Your task to perform on an android device: toggle translation in the chrome app Image 0: 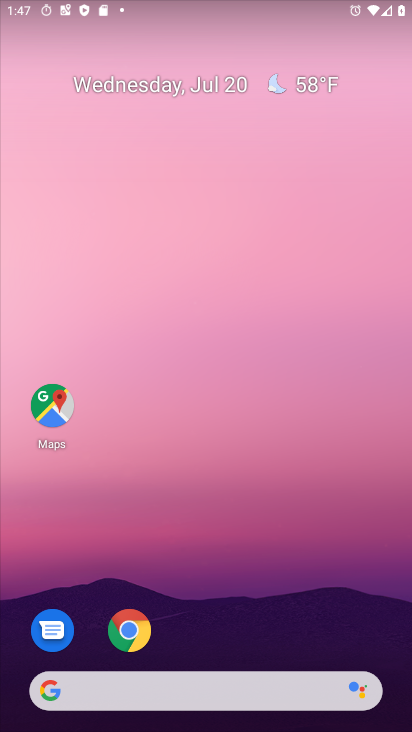
Step 0: click (128, 626)
Your task to perform on an android device: toggle translation in the chrome app Image 1: 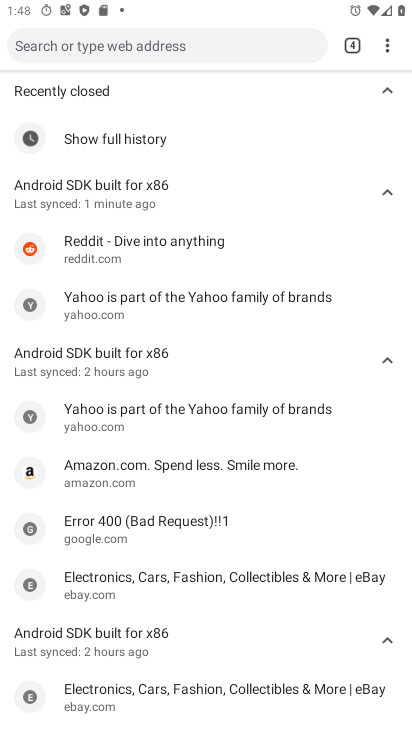
Step 1: drag from (386, 44) to (300, 380)
Your task to perform on an android device: toggle translation in the chrome app Image 2: 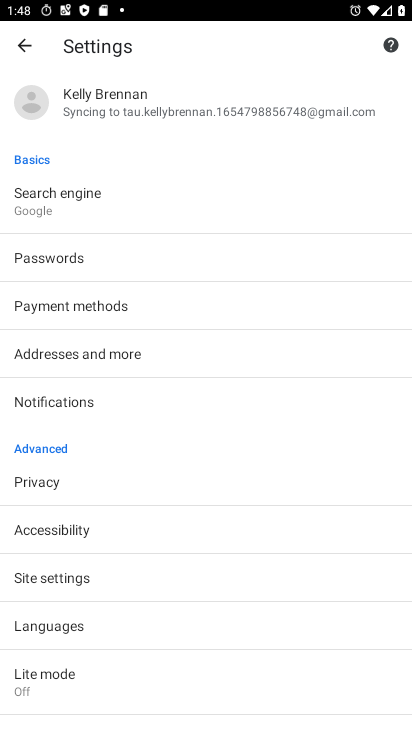
Step 2: drag from (180, 620) to (269, 174)
Your task to perform on an android device: toggle translation in the chrome app Image 3: 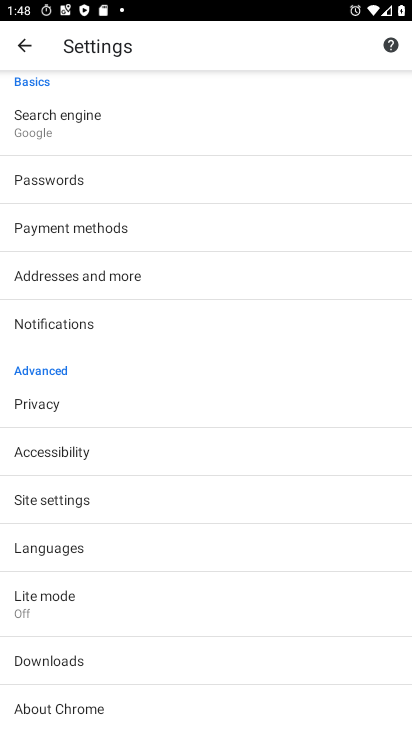
Step 3: click (107, 543)
Your task to perform on an android device: toggle translation in the chrome app Image 4: 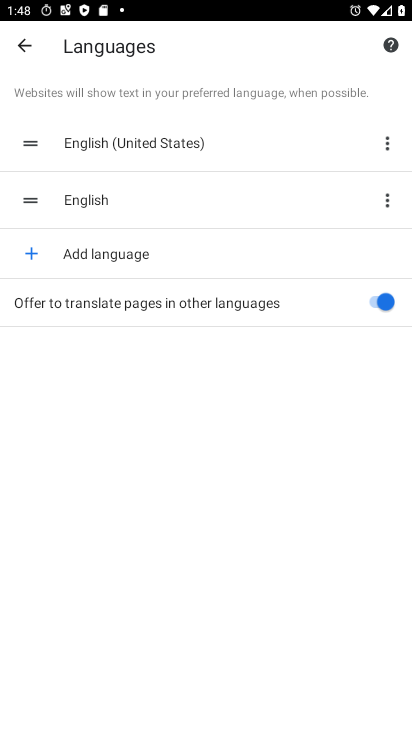
Step 4: click (374, 303)
Your task to perform on an android device: toggle translation in the chrome app Image 5: 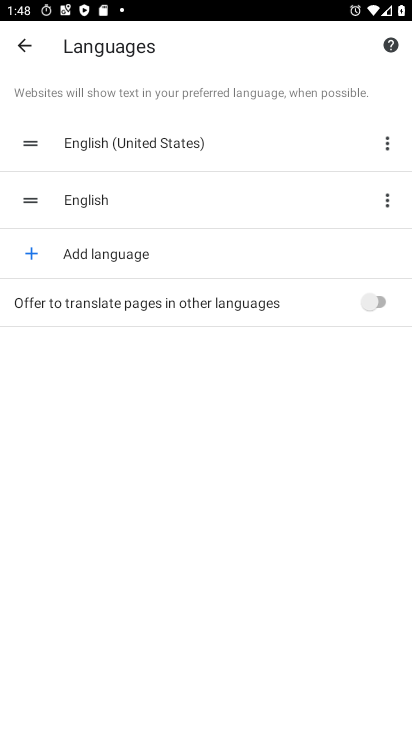
Step 5: task complete